Your task to perform on an android device: Open calendar and show me the first week of next month Image 0: 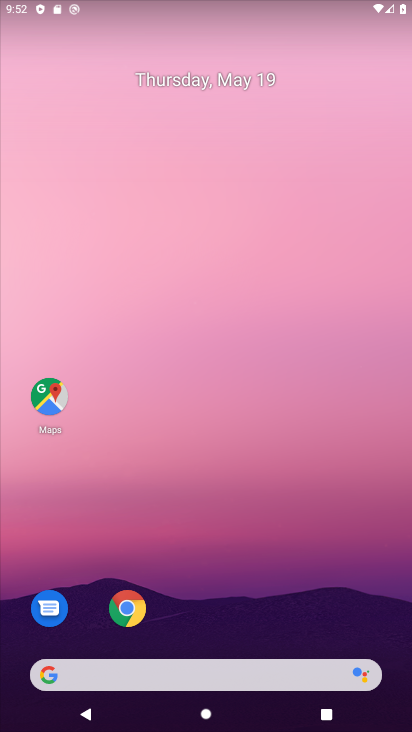
Step 0: drag from (249, 623) to (255, 94)
Your task to perform on an android device: Open calendar and show me the first week of next month Image 1: 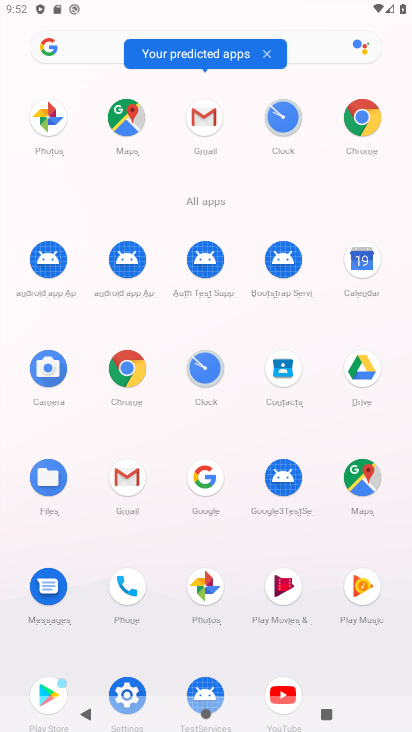
Step 1: click (346, 258)
Your task to perform on an android device: Open calendar and show me the first week of next month Image 2: 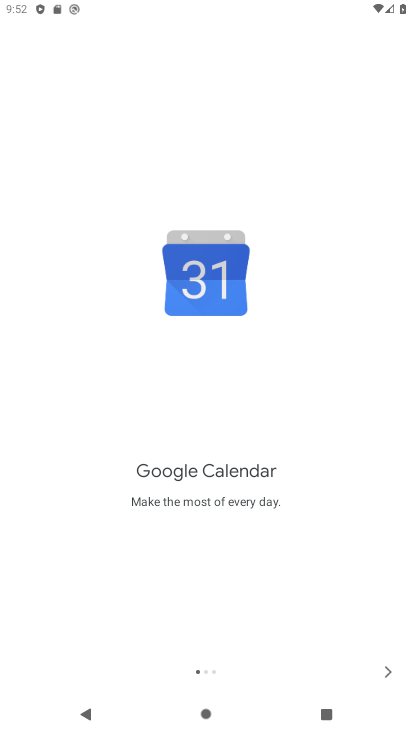
Step 2: click (383, 670)
Your task to perform on an android device: Open calendar and show me the first week of next month Image 3: 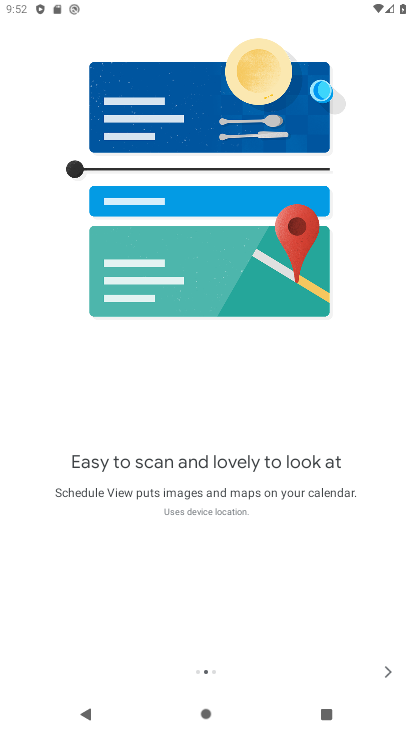
Step 3: click (383, 670)
Your task to perform on an android device: Open calendar and show me the first week of next month Image 4: 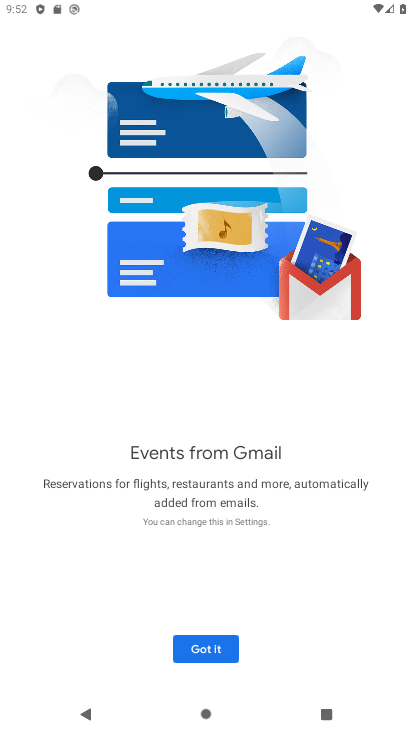
Step 4: click (194, 654)
Your task to perform on an android device: Open calendar and show me the first week of next month Image 5: 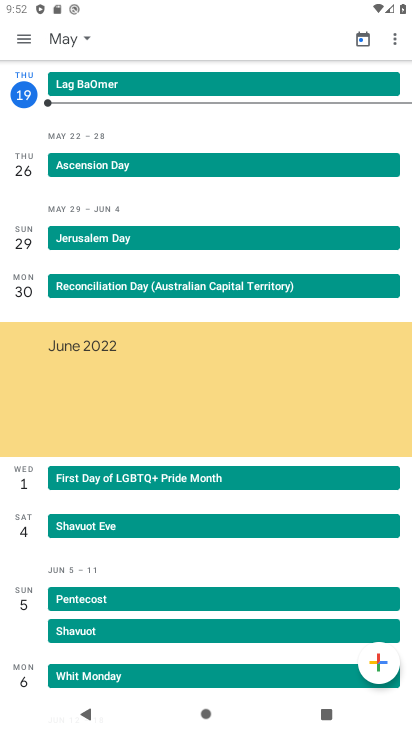
Step 5: click (79, 35)
Your task to perform on an android device: Open calendar and show me the first week of next month Image 6: 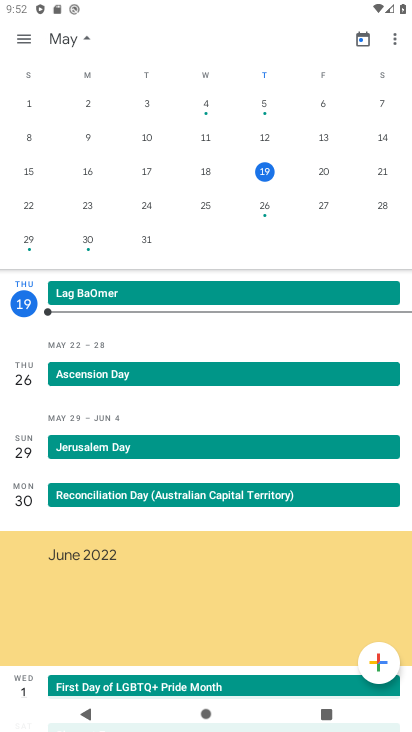
Step 6: drag from (394, 159) to (11, 111)
Your task to perform on an android device: Open calendar and show me the first week of next month Image 7: 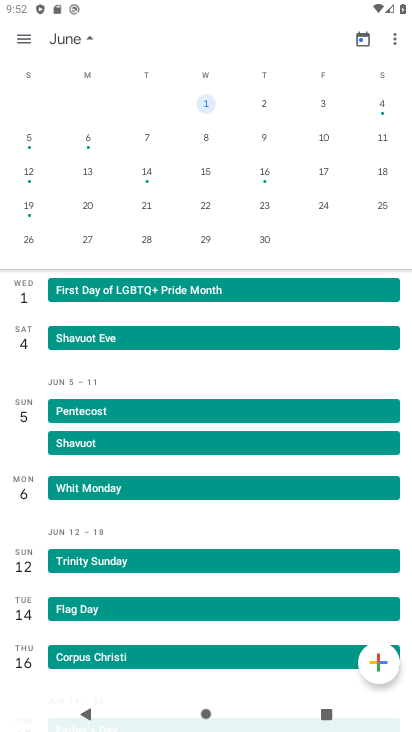
Step 7: click (33, 34)
Your task to perform on an android device: Open calendar and show me the first week of next month Image 8: 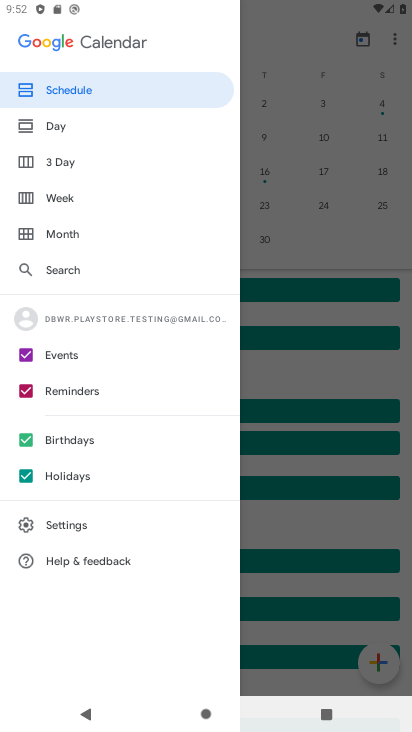
Step 8: click (102, 207)
Your task to perform on an android device: Open calendar and show me the first week of next month Image 9: 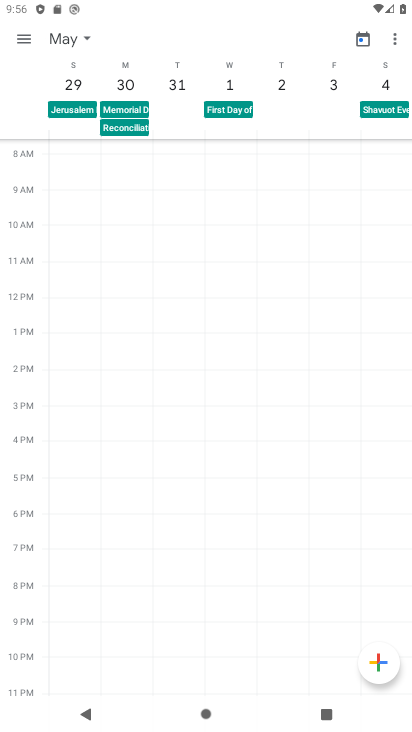
Step 9: task complete